Your task to perform on an android device: Turn off the flashlight Image 0: 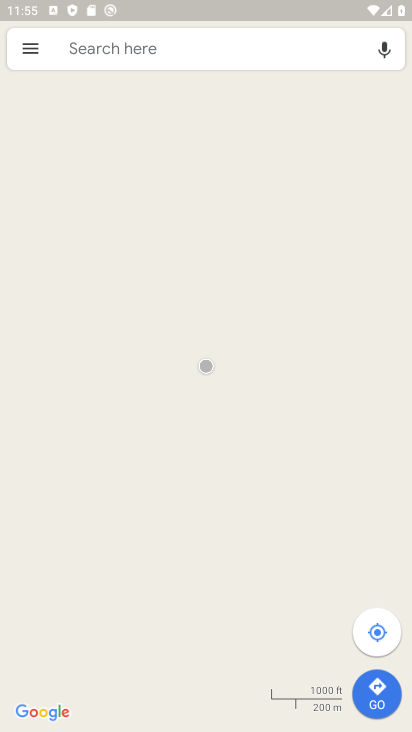
Step 0: drag from (251, 2) to (182, 487)
Your task to perform on an android device: Turn off the flashlight Image 1: 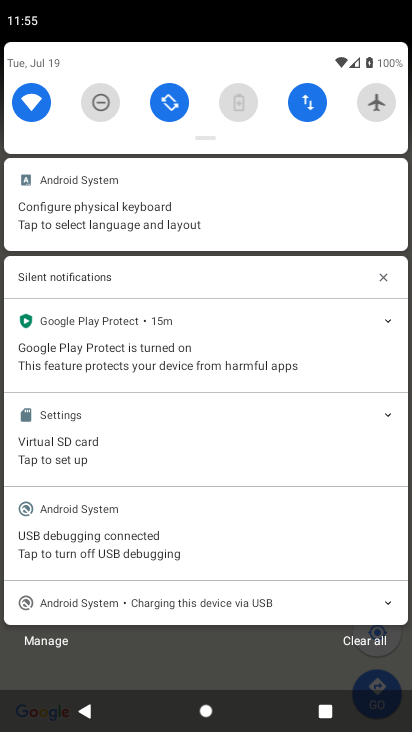
Step 1: task complete